Your task to perform on an android device: turn off improve location accuracy Image 0: 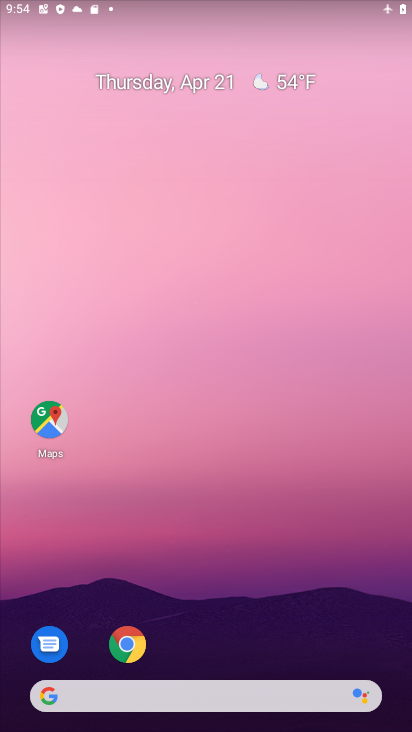
Step 0: drag from (183, 628) to (121, 103)
Your task to perform on an android device: turn off improve location accuracy Image 1: 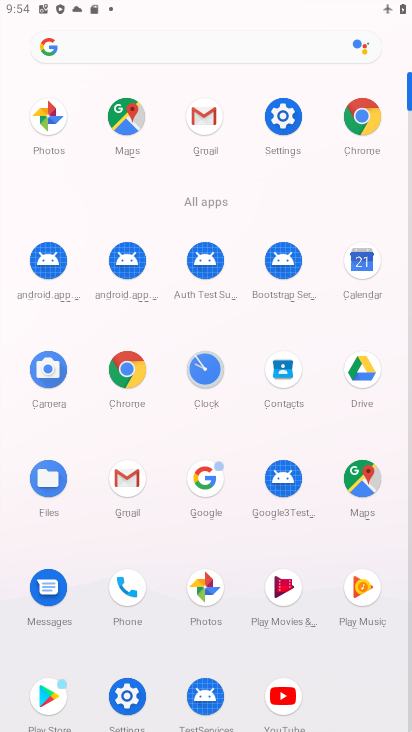
Step 1: click (280, 133)
Your task to perform on an android device: turn off improve location accuracy Image 2: 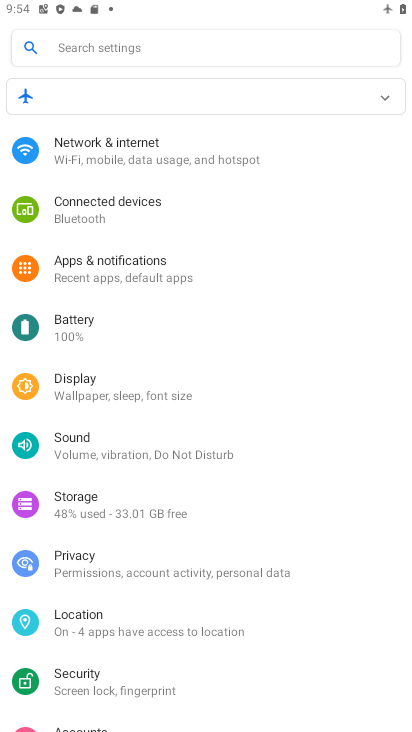
Step 2: click (89, 622)
Your task to perform on an android device: turn off improve location accuracy Image 3: 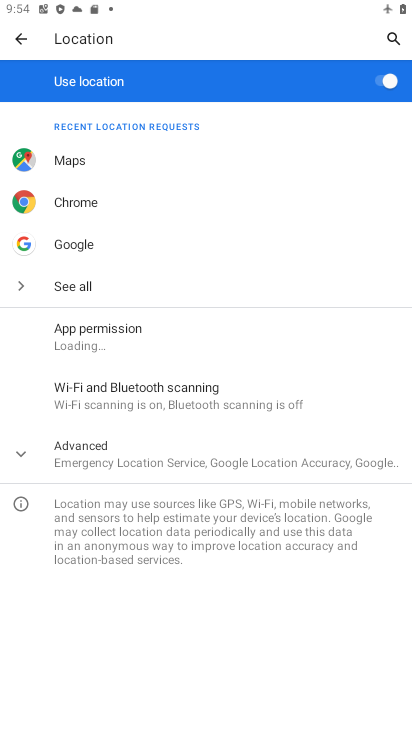
Step 3: click (142, 459)
Your task to perform on an android device: turn off improve location accuracy Image 4: 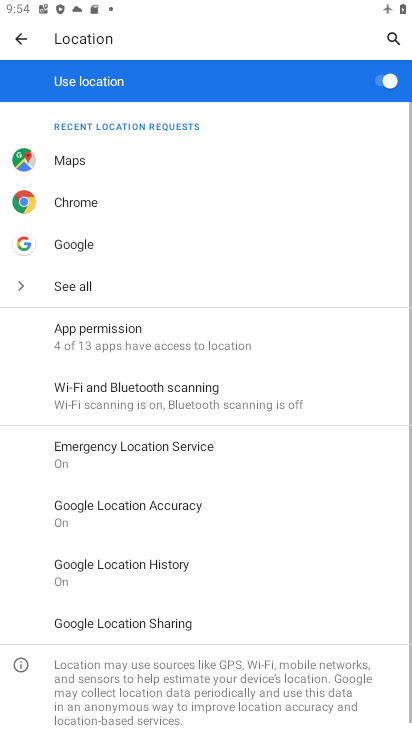
Step 4: click (130, 513)
Your task to perform on an android device: turn off improve location accuracy Image 5: 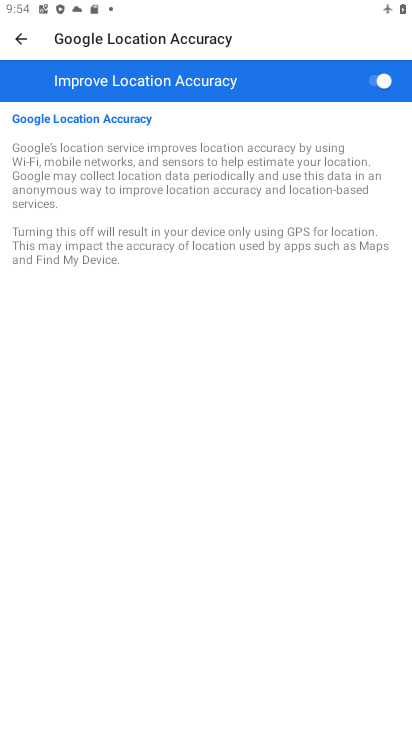
Step 5: click (382, 82)
Your task to perform on an android device: turn off improve location accuracy Image 6: 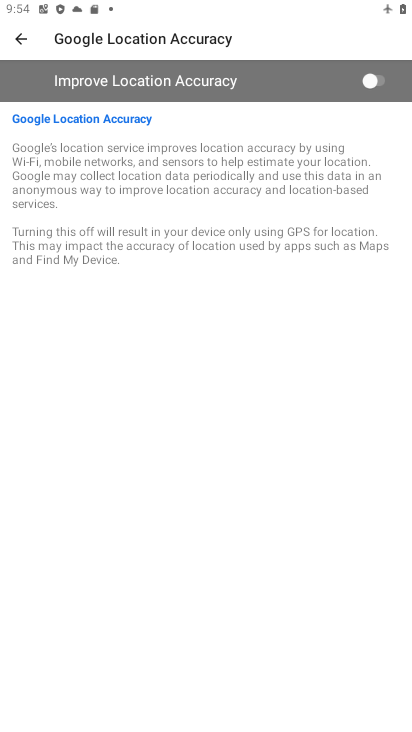
Step 6: task complete